Your task to perform on an android device: Show me the alarms in the clock app Image 0: 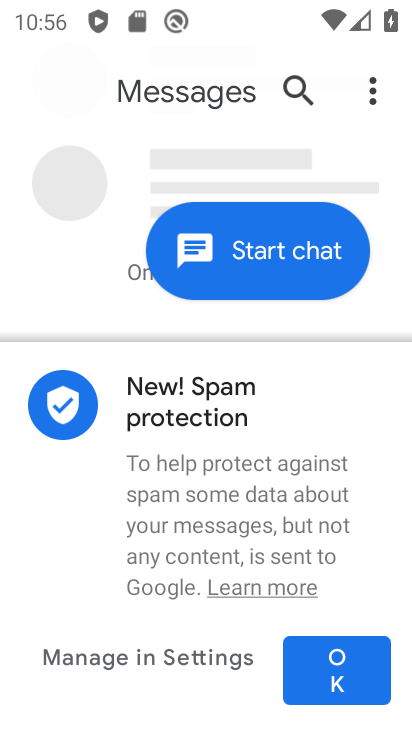
Step 0: press back button
Your task to perform on an android device: Show me the alarms in the clock app Image 1: 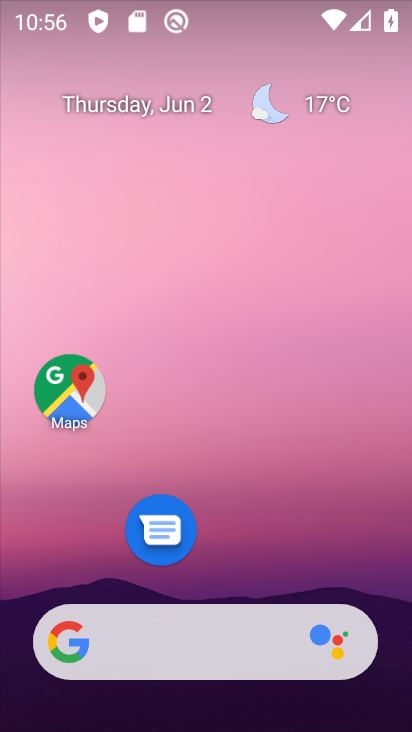
Step 1: drag from (223, 625) to (234, 75)
Your task to perform on an android device: Show me the alarms in the clock app Image 2: 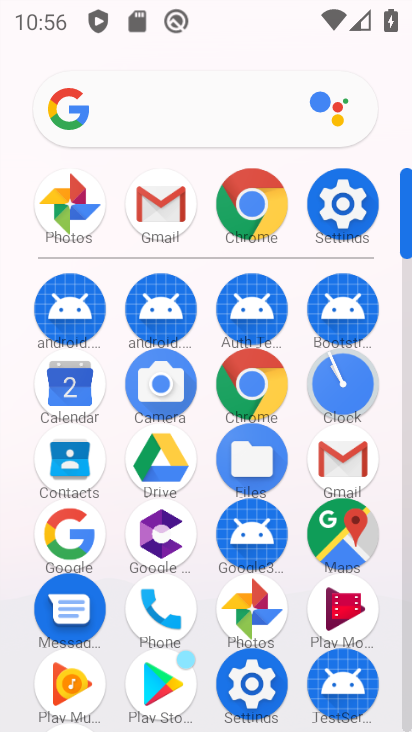
Step 2: click (342, 378)
Your task to perform on an android device: Show me the alarms in the clock app Image 3: 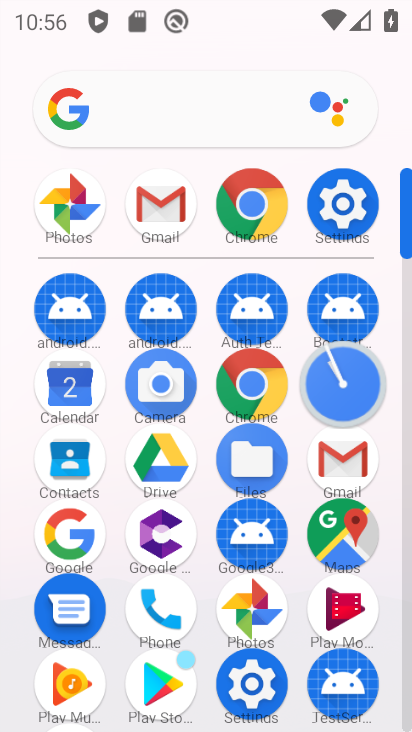
Step 3: click (341, 378)
Your task to perform on an android device: Show me the alarms in the clock app Image 4: 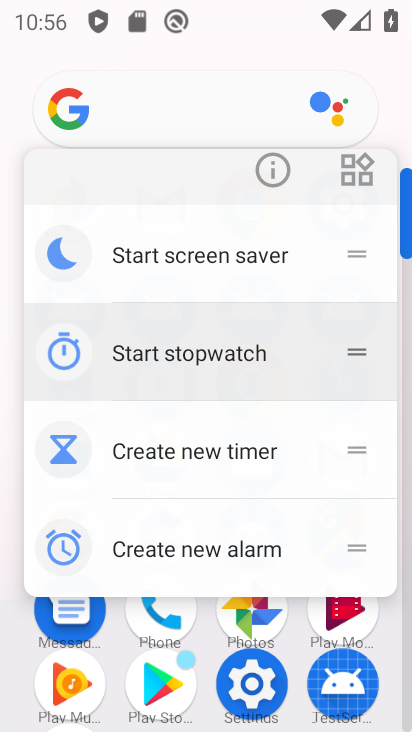
Step 4: click (341, 378)
Your task to perform on an android device: Show me the alarms in the clock app Image 5: 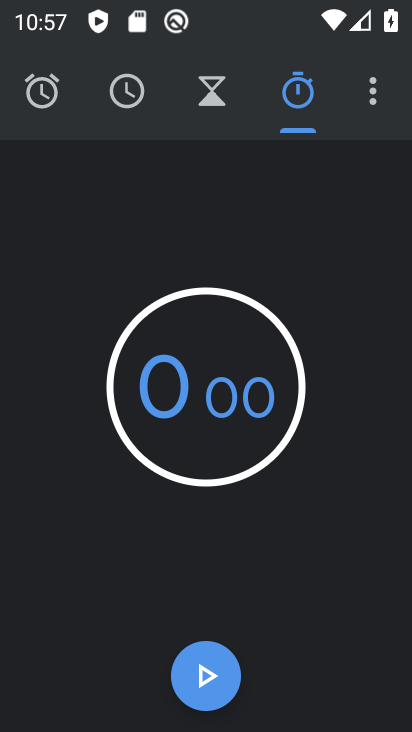
Step 5: click (43, 92)
Your task to perform on an android device: Show me the alarms in the clock app Image 6: 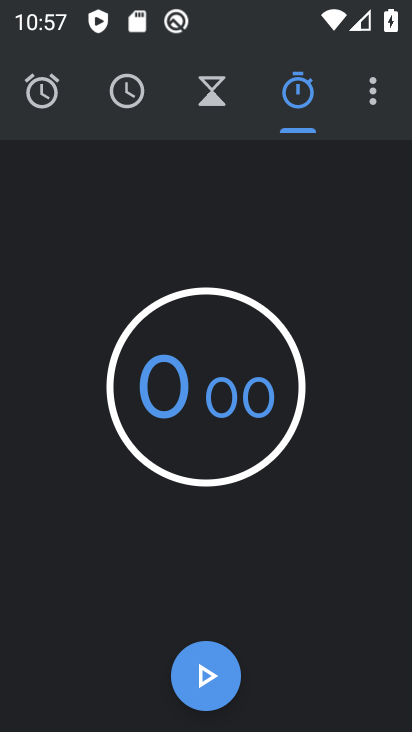
Step 6: click (36, 100)
Your task to perform on an android device: Show me the alarms in the clock app Image 7: 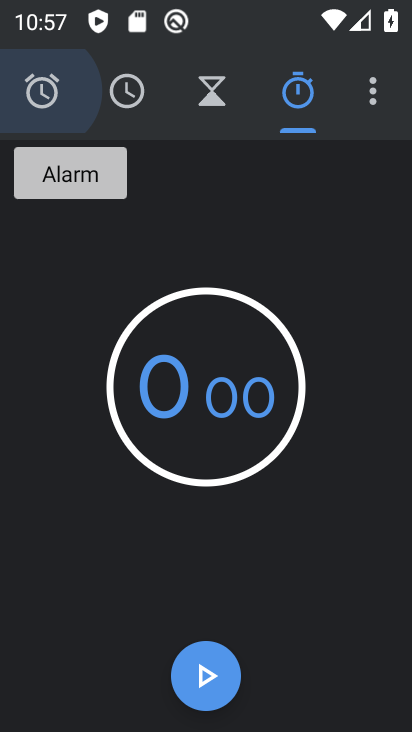
Step 7: click (37, 99)
Your task to perform on an android device: Show me the alarms in the clock app Image 8: 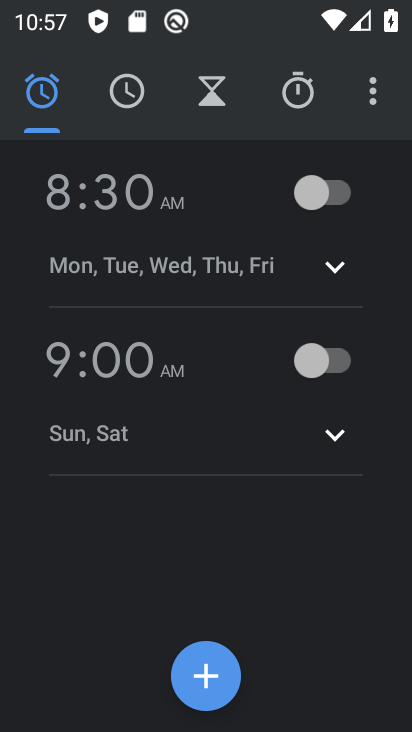
Step 8: click (307, 197)
Your task to perform on an android device: Show me the alarms in the clock app Image 9: 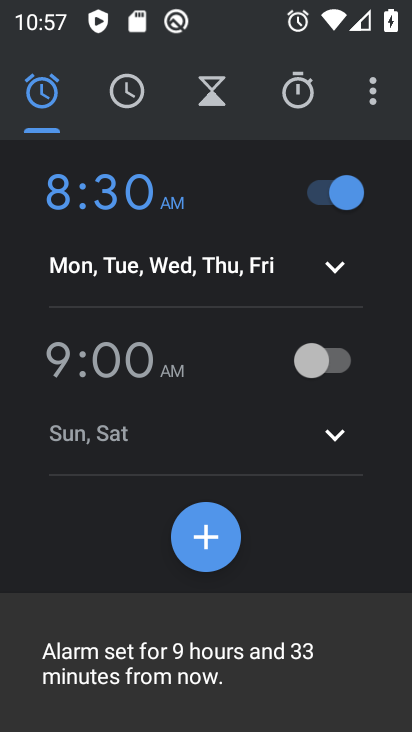
Step 9: task complete